Your task to perform on an android device: Open location settings Image 0: 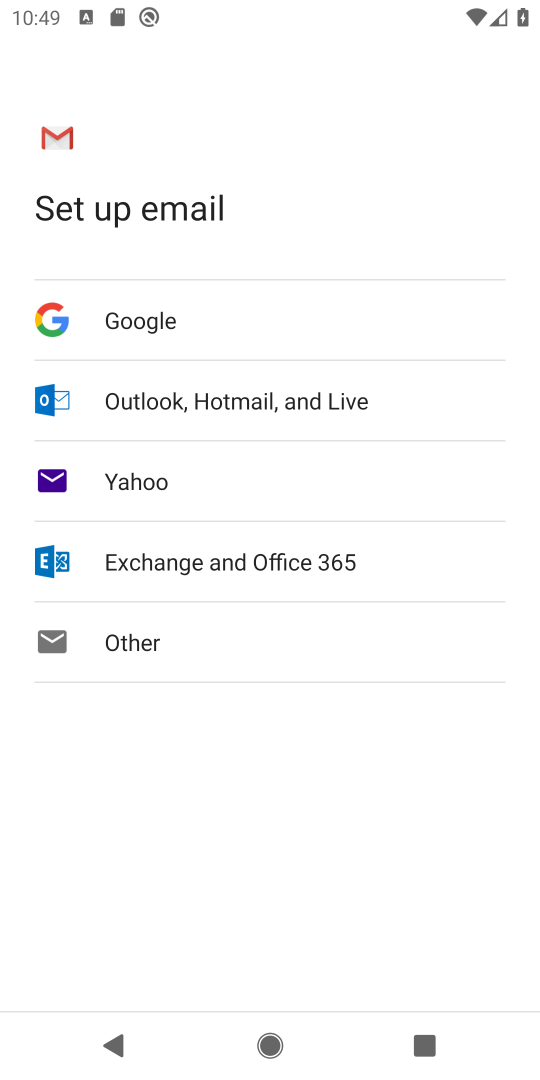
Step 0: press home button
Your task to perform on an android device: Open location settings Image 1: 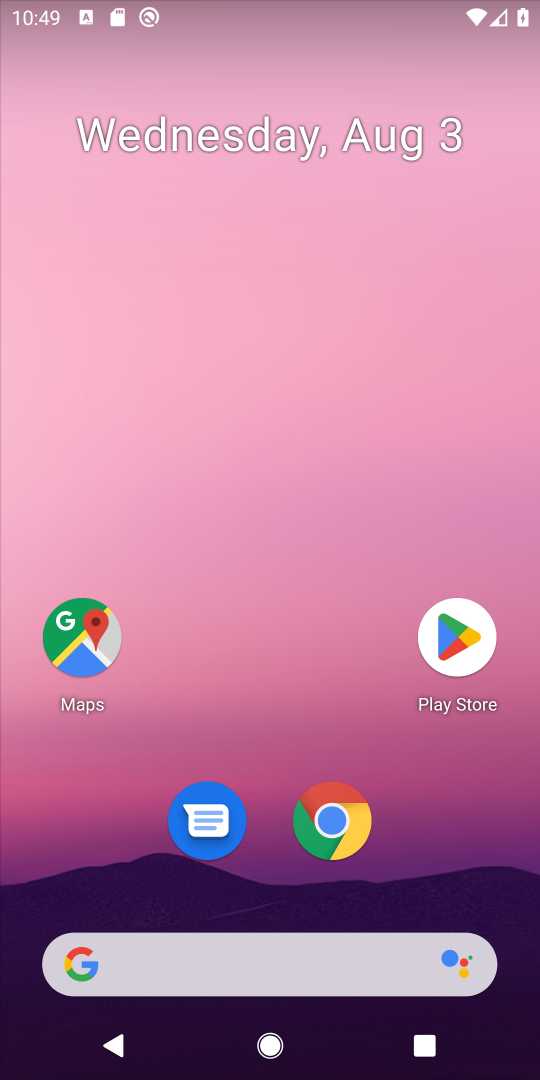
Step 1: drag from (326, 936) to (471, 190)
Your task to perform on an android device: Open location settings Image 2: 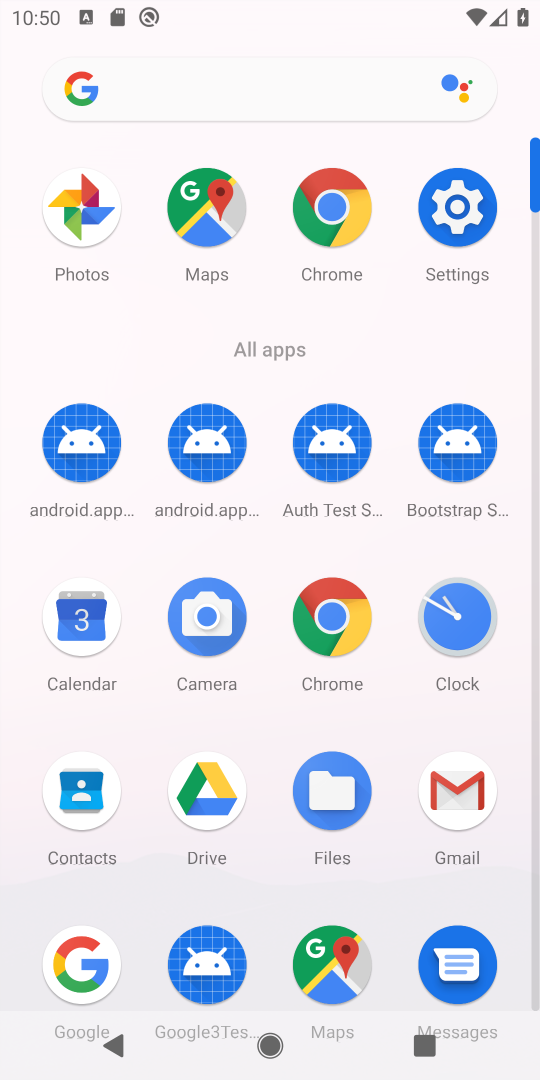
Step 2: click (466, 190)
Your task to perform on an android device: Open location settings Image 3: 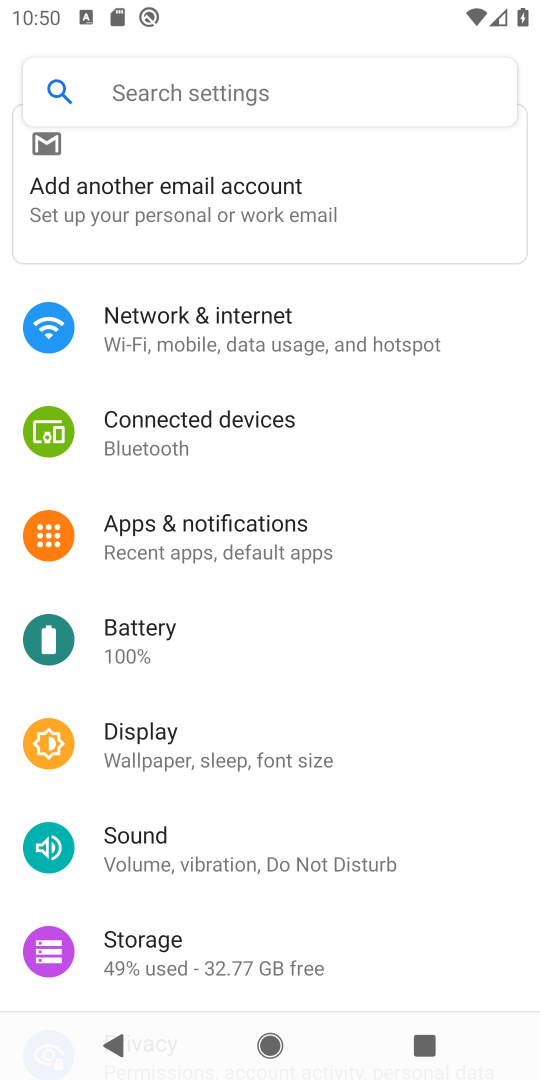
Step 3: drag from (255, 908) to (331, 259)
Your task to perform on an android device: Open location settings Image 4: 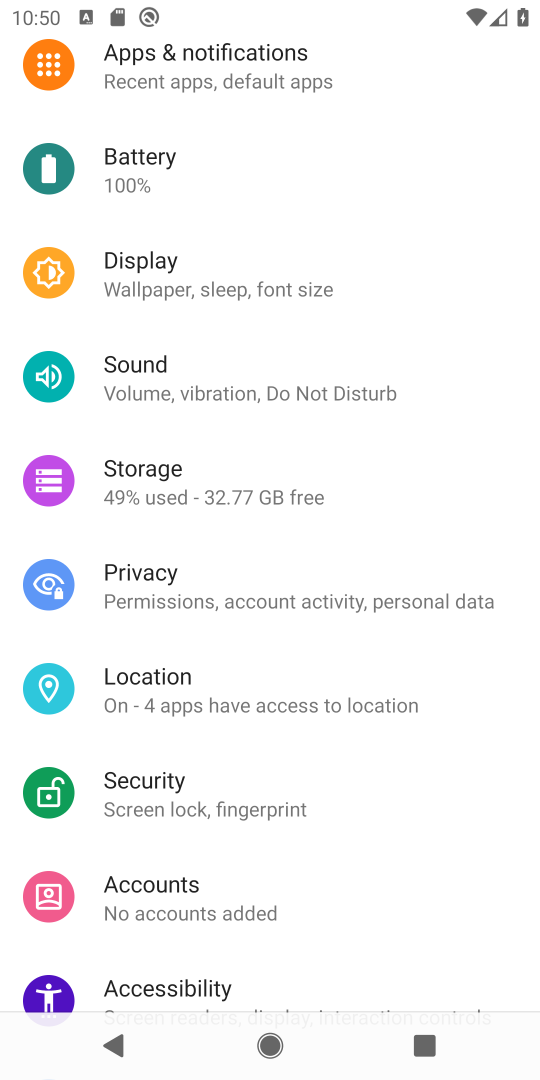
Step 4: click (241, 681)
Your task to perform on an android device: Open location settings Image 5: 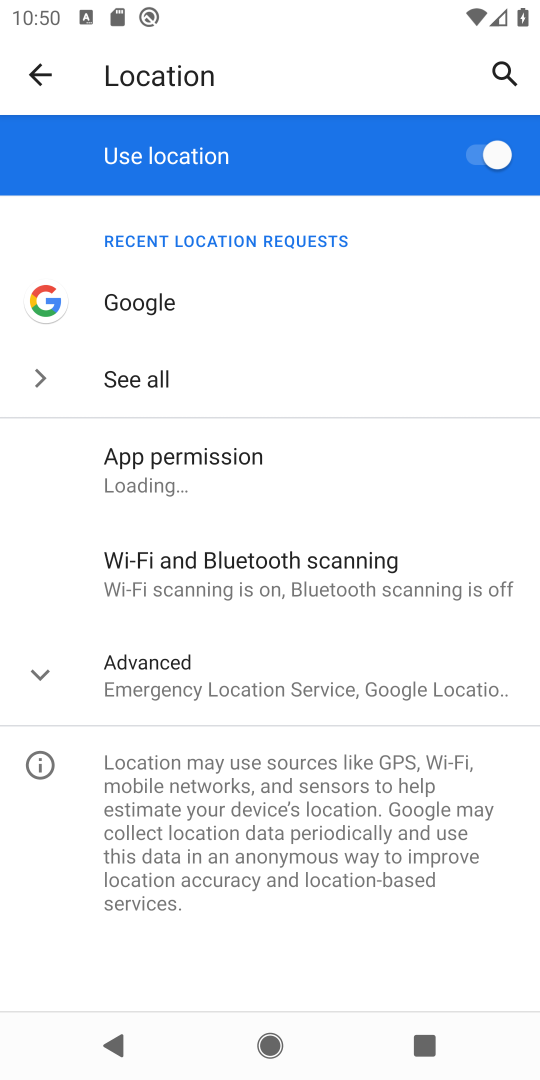
Step 5: task complete